Your task to perform on an android device: open app "Instagram" (install if not already installed), go to login, and select forgot password Image 0: 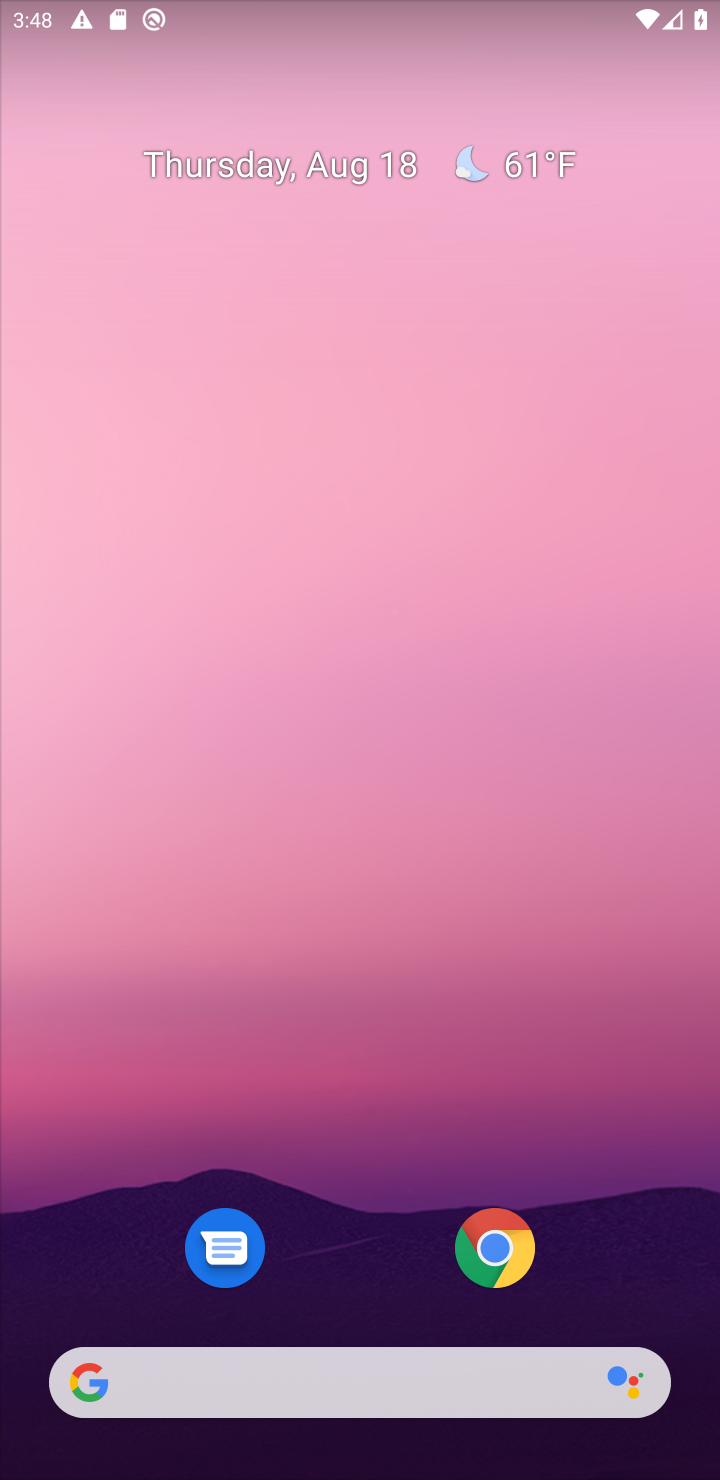
Step 0: drag from (372, 860) to (367, 216)
Your task to perform on an android device: open app "Instagram" (install if not already installed), go to login, and select forgot password Image 1: 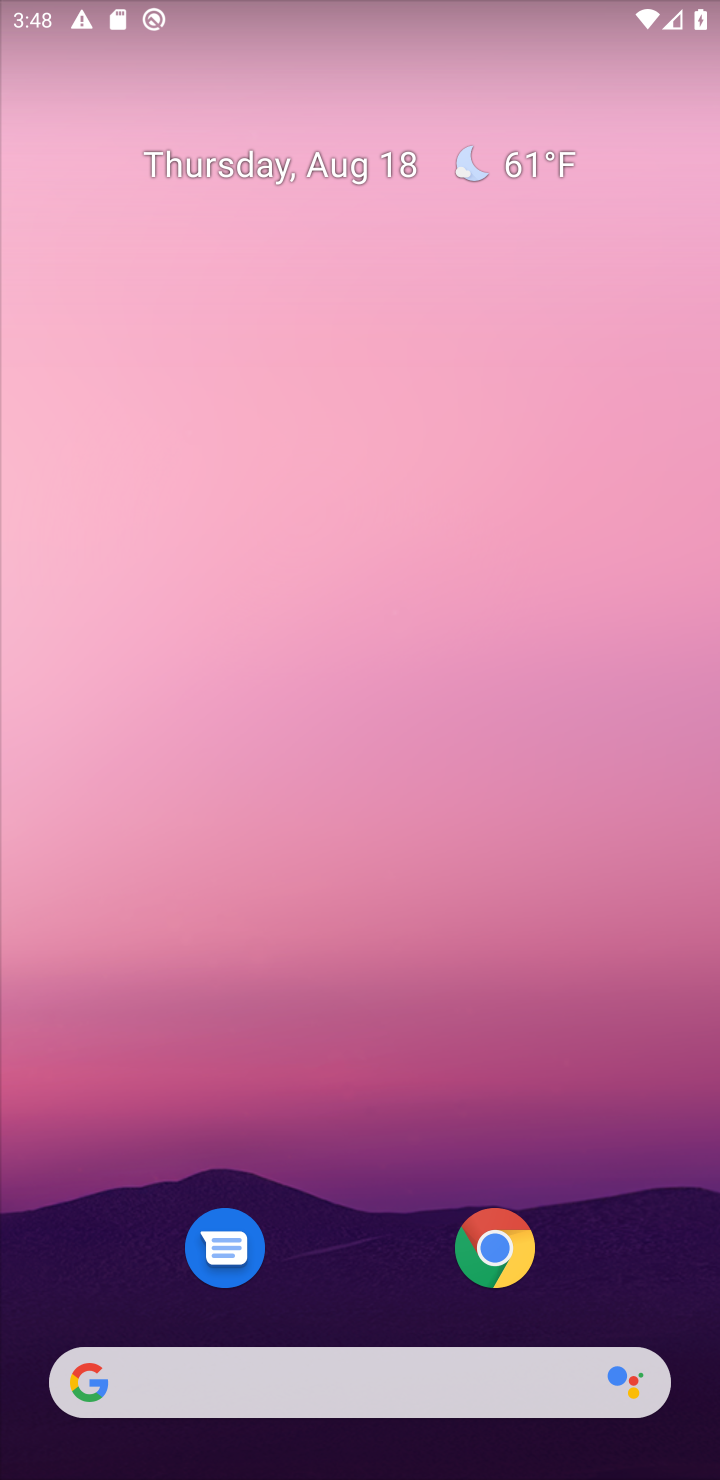
Step 1: drag from (418, 1250) to (477, 21)
Your task to perform on an android device: open app "Instagram" (install if not already installed), go to login, and select forgot password Image 2: 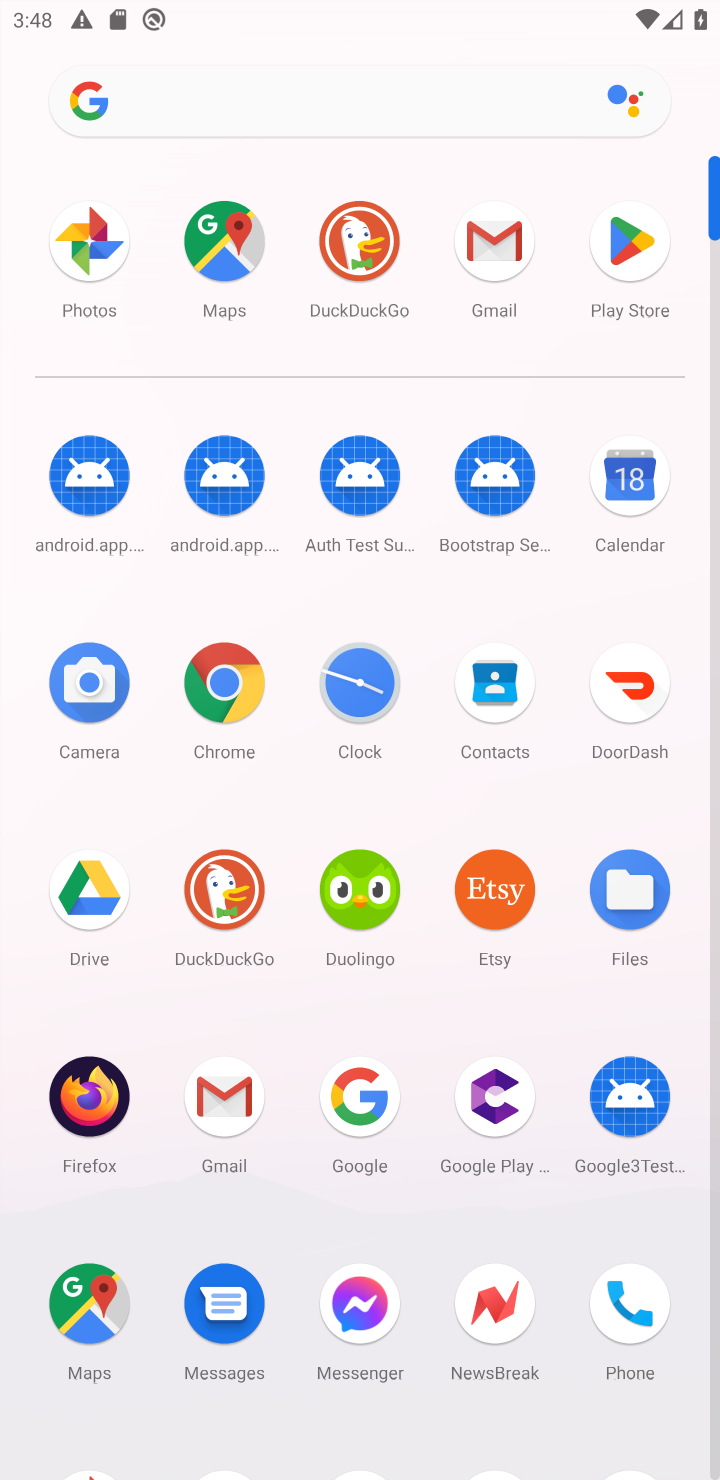
Step 2: click (619, 242)
Your task to perform on an android device: open app "Instagram" (install if not already installed), go to login, and select forgot password Image 3: 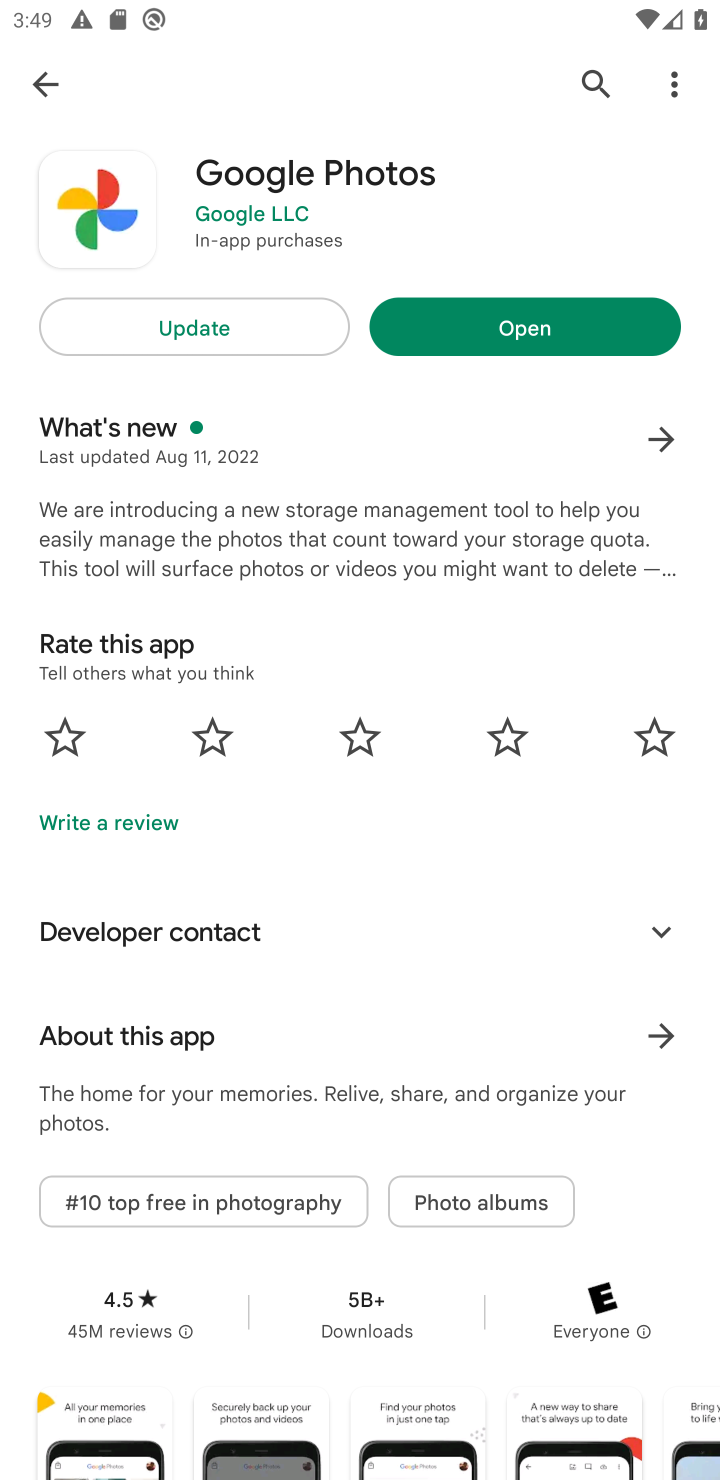
Step 3: click (596, 87)
Your task to perform on an android device: open app "Instagram" (install if not already installed), go to login, and select forgot password Image 4: 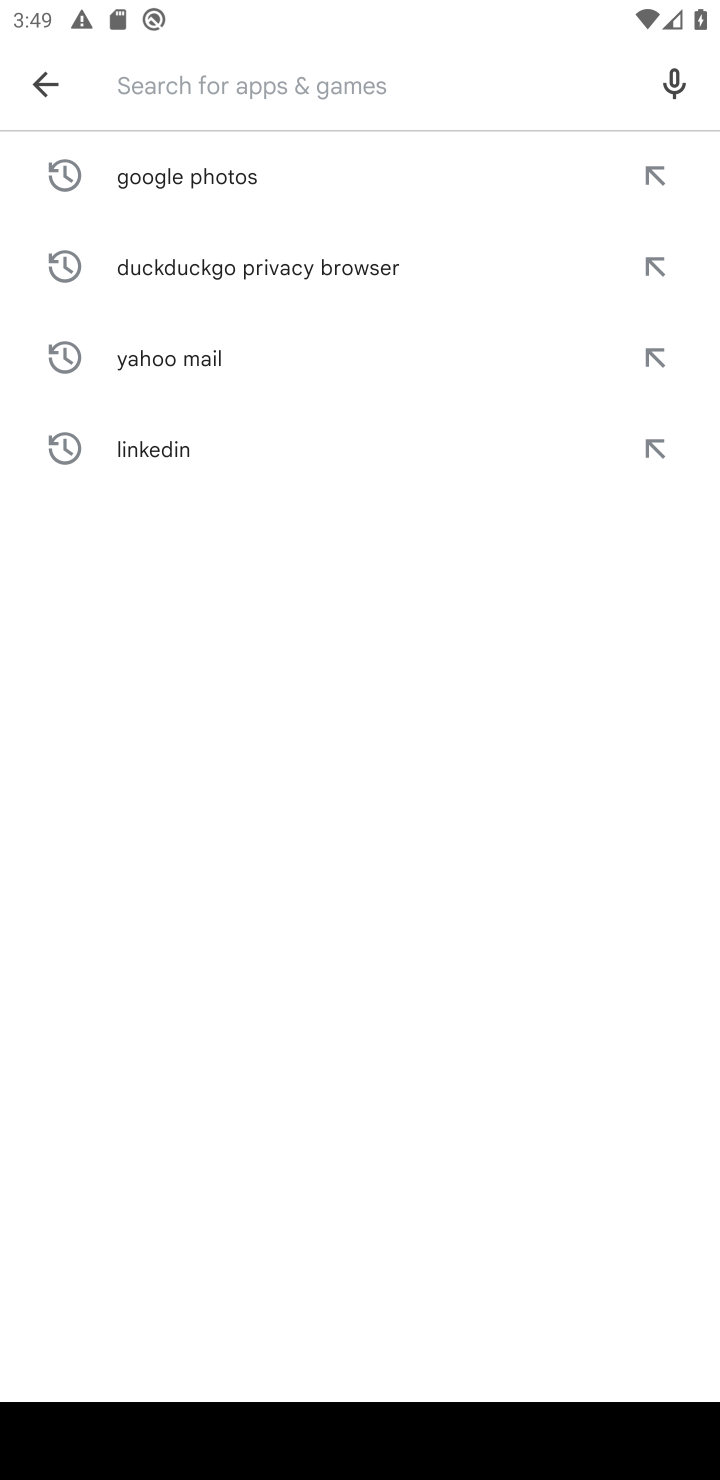
Step 4: type "Instagram"
Your task to perform on an android device: open app "Instagram" (install if not already installed), go to login, and select forgot password Image 5: 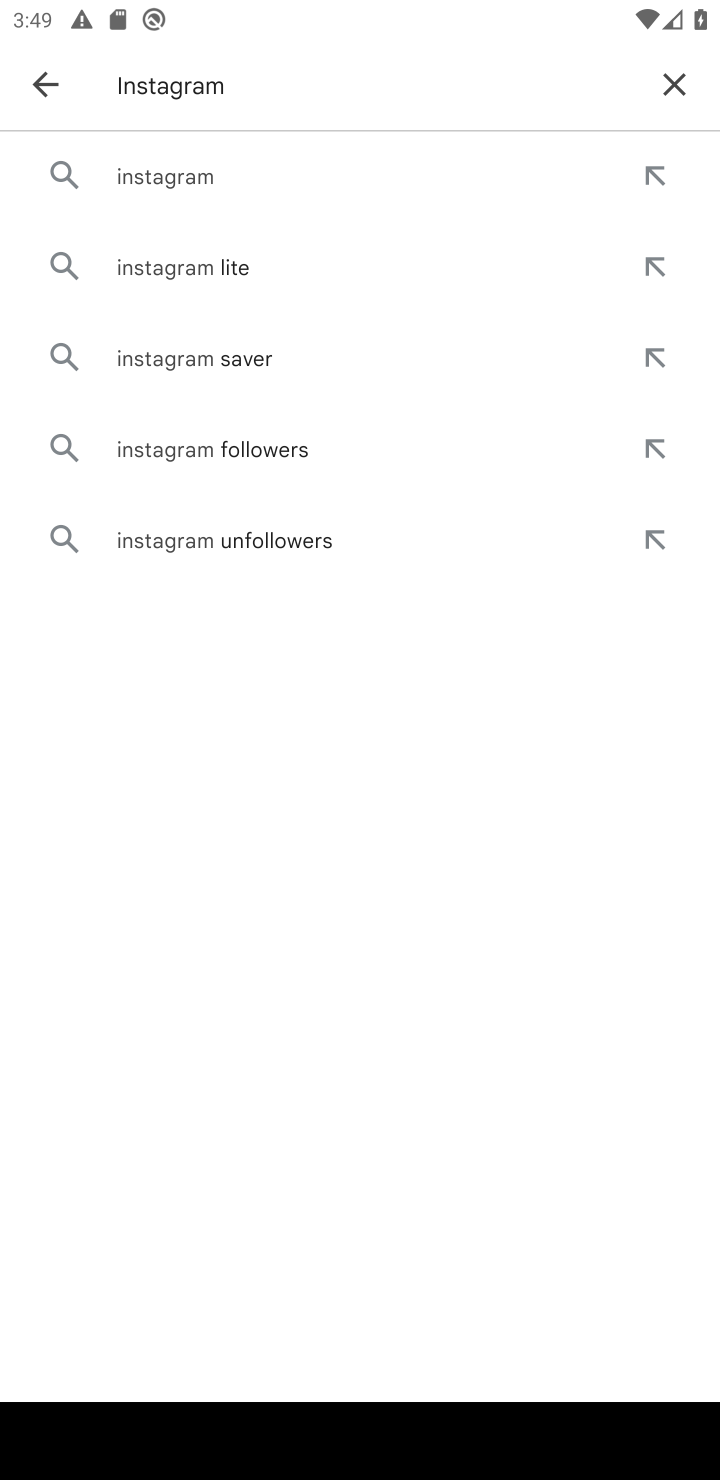
Step 5: click (177, 169)
Your task to perform on an android device: open app "Instagram" (install if not already installed), go to login, and select forgot password Image 6: 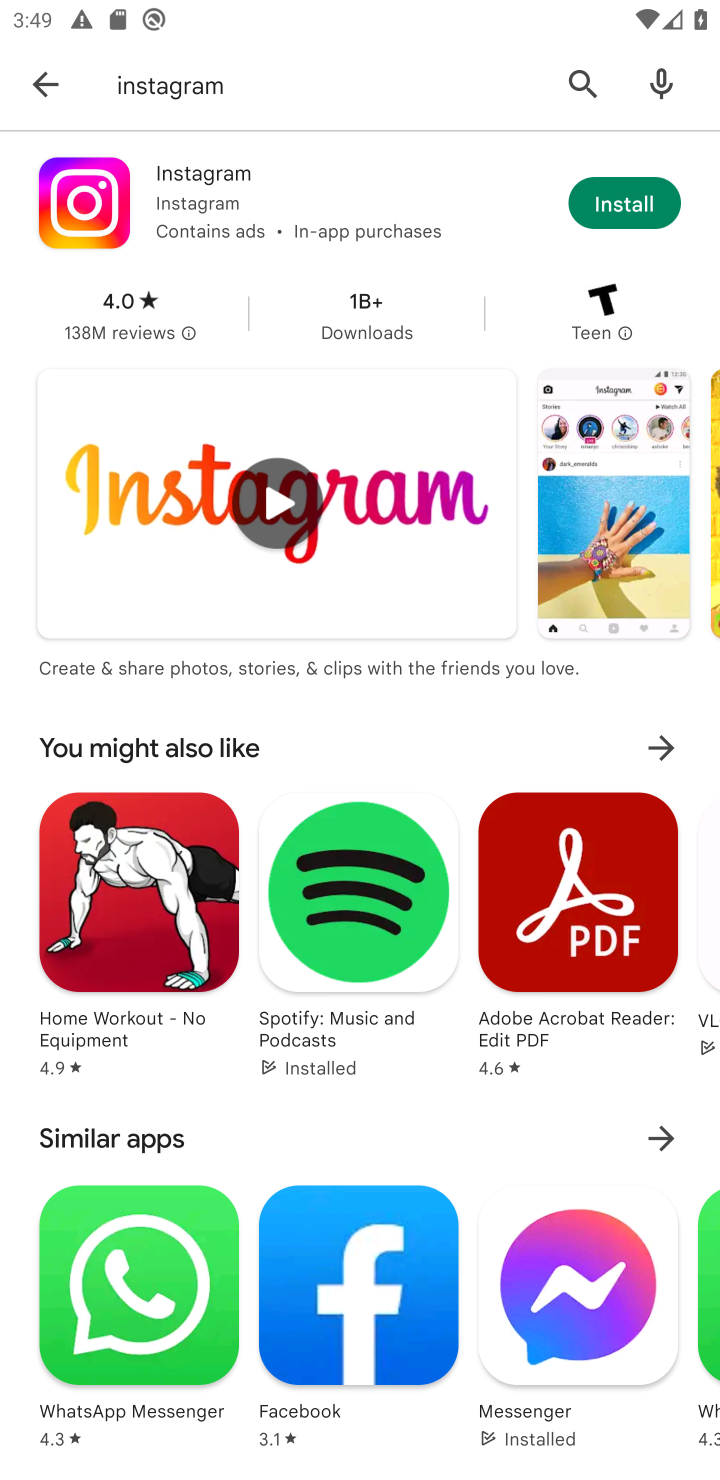
Step 6: click (631, 206)
Your task to perform on an android device: open app "Instagram" (install if not already installed), go to login, and select forgot password Image 7: 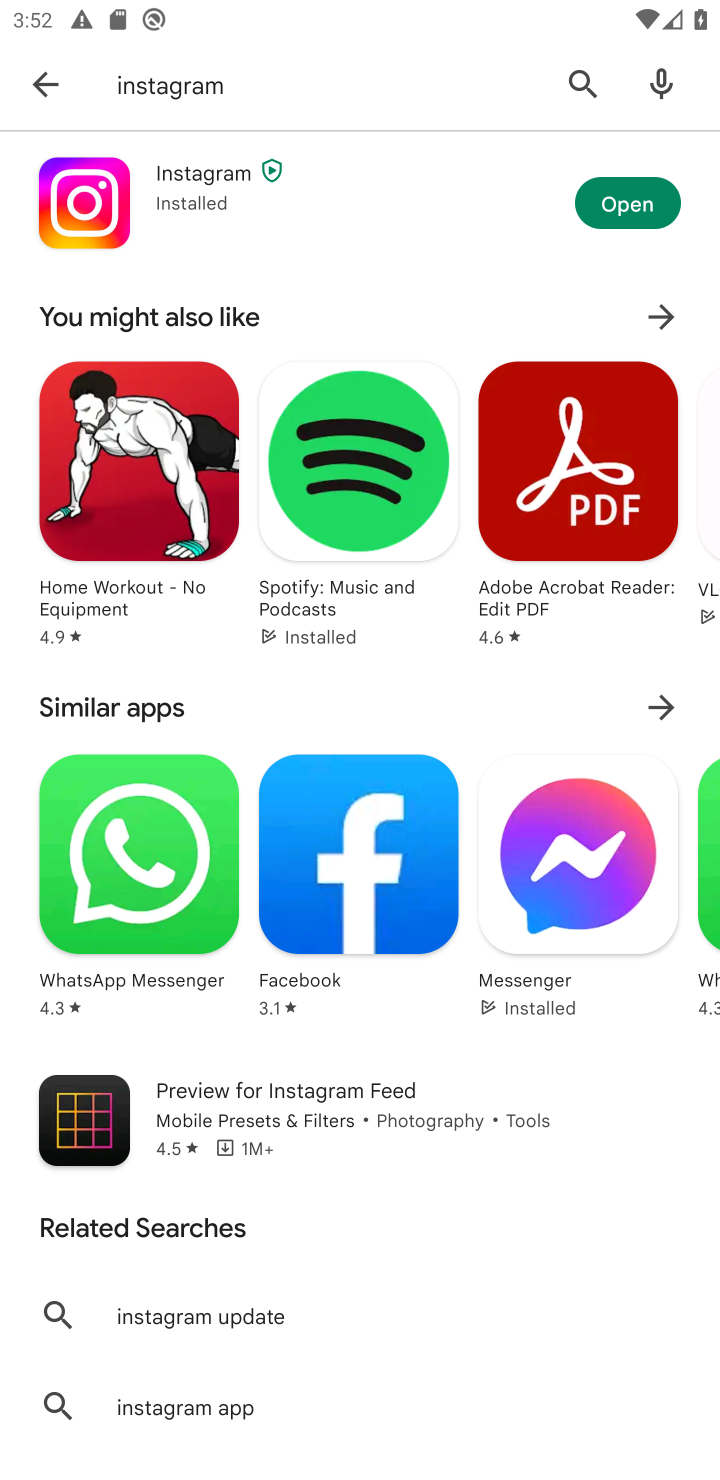
Step 7: click (624, 198)
Your task to perform on an android device: open app "Instagram" (install if not already installed), go to login, and select forgot password Image 8: 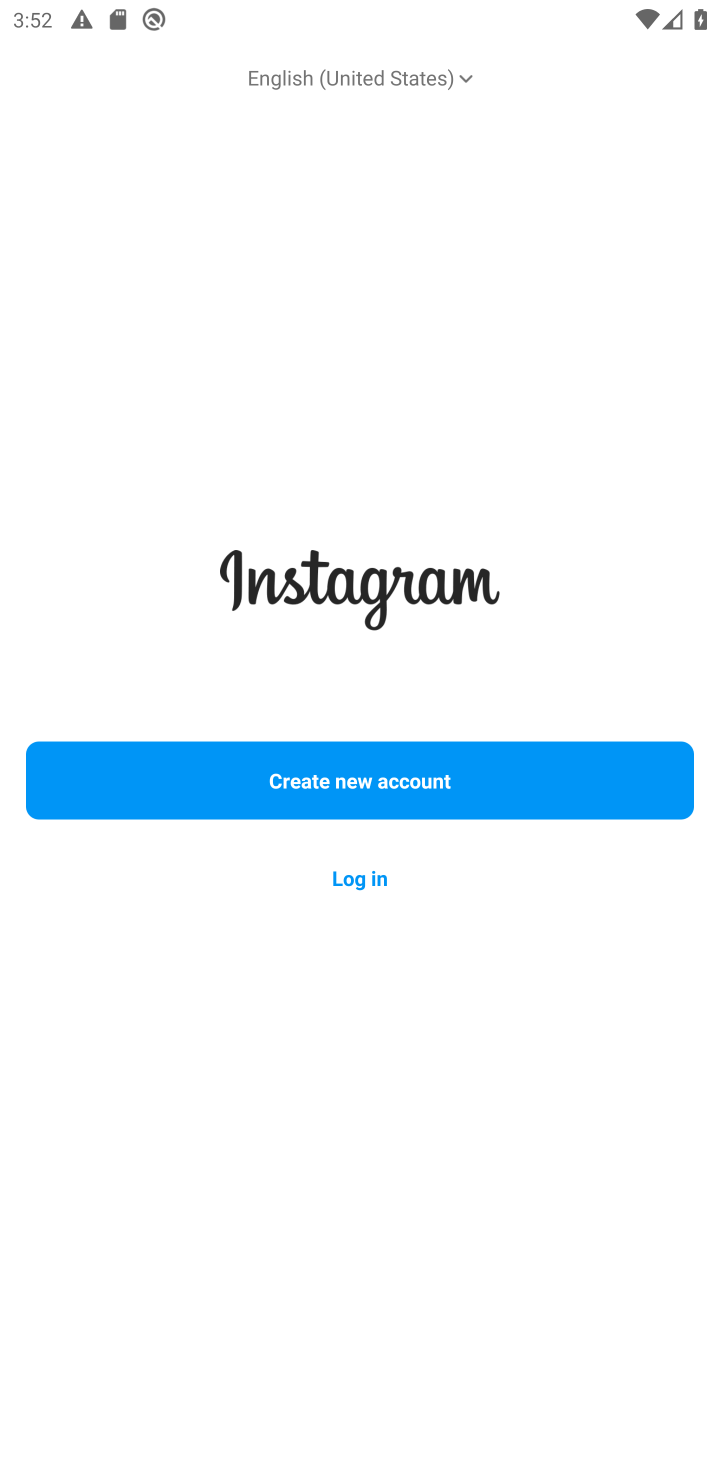
Step 8: click (384, 874)
Your task to perform on an android device: open app "Instagram" (install if not already installed), go to login, and select forgot password Image 9: 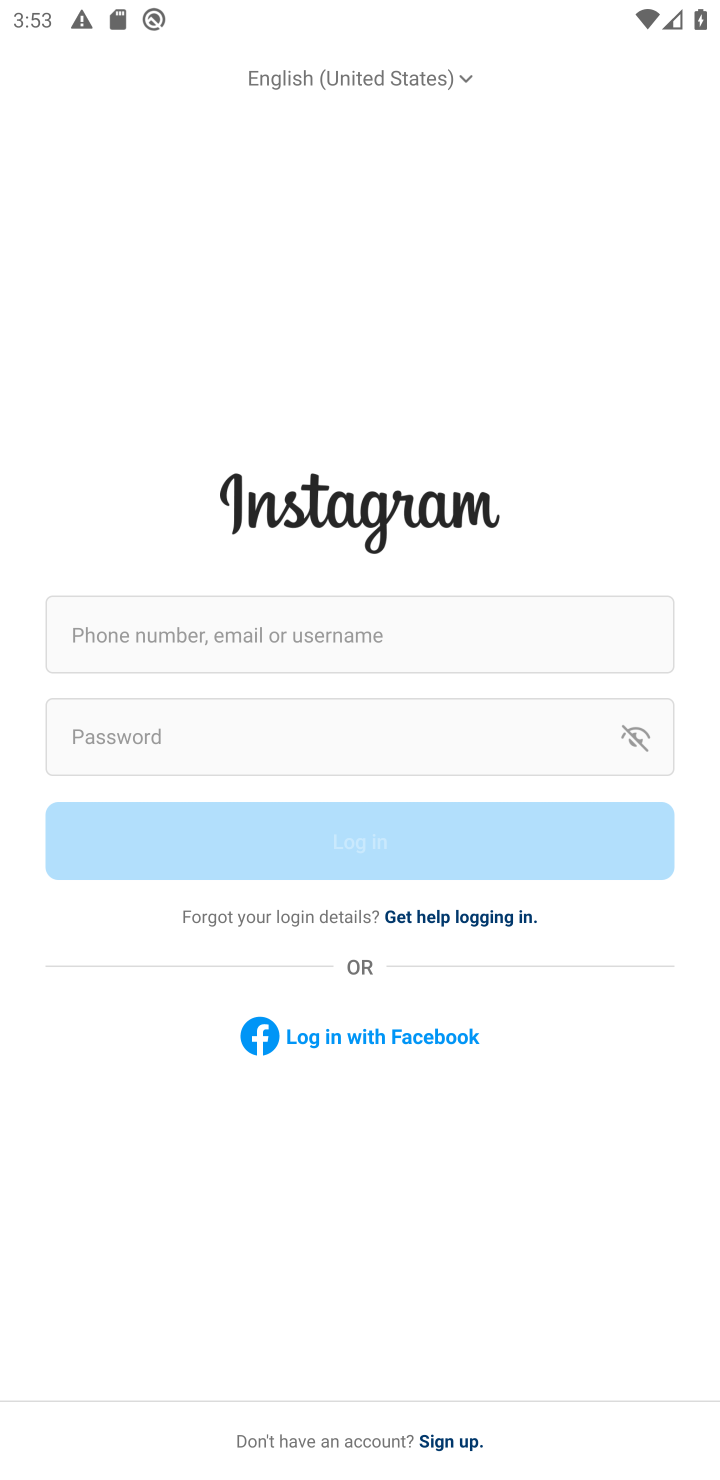
Step 9: task complete